Your task to perform on an android device: Open wifi settings Image 0: 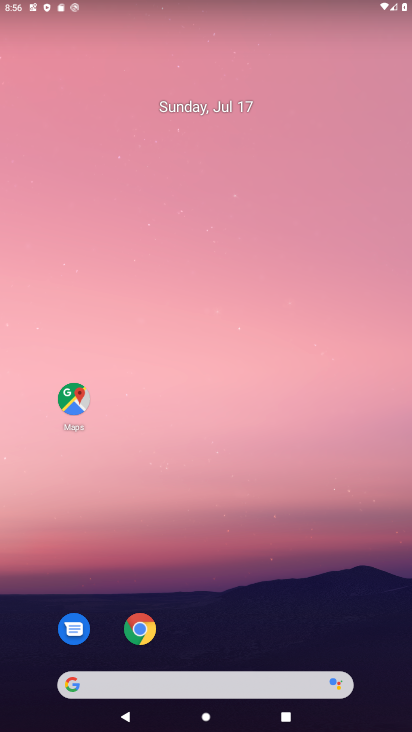
Step 0: click (221, 120)
Your task to perform on an android device: Open wifi settings Image 1: 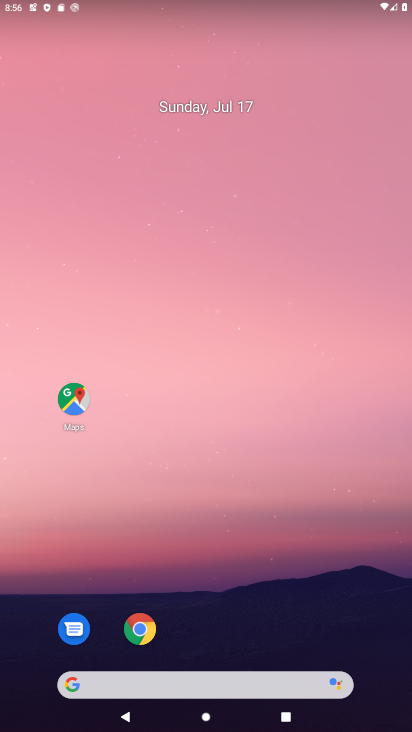
Step 1: drag from (229, 726) to (232, 96)
Your task to perform on an android device: Open wifi settings Image 2: 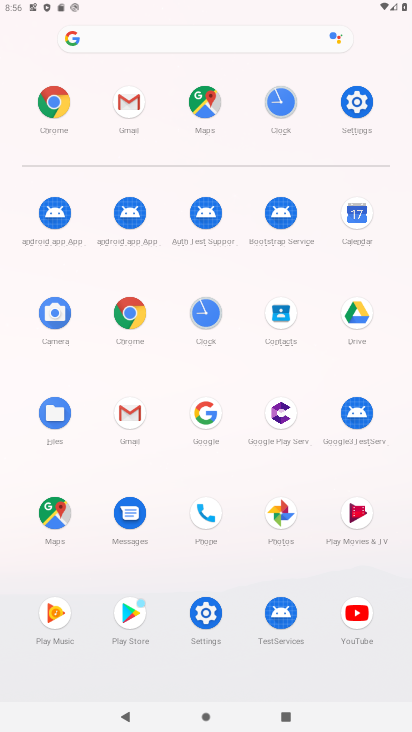
Step 2: click (364, 97)
Your task to perform on an android device: Open wifi settings Image 3: 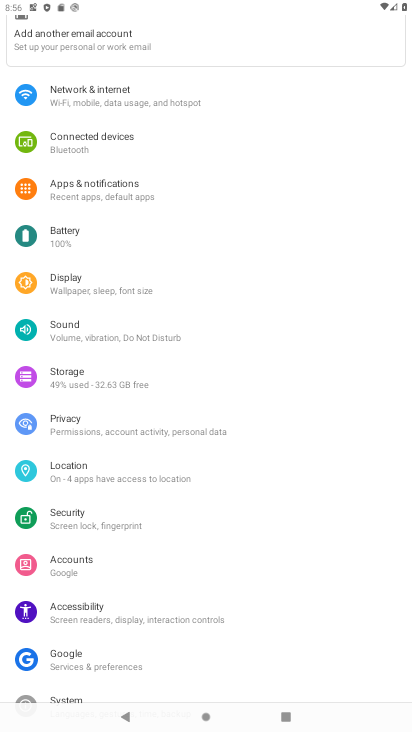
Step 3: click (92, 86)
Your task to perform on an android device: Open wifi settings Image 4: 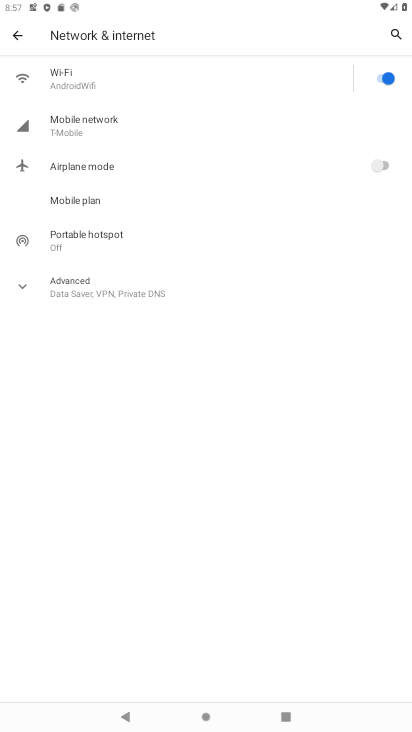
Step 4: click (65, 72)
Your task to perform on an android device: Open wifi settings Image 5: 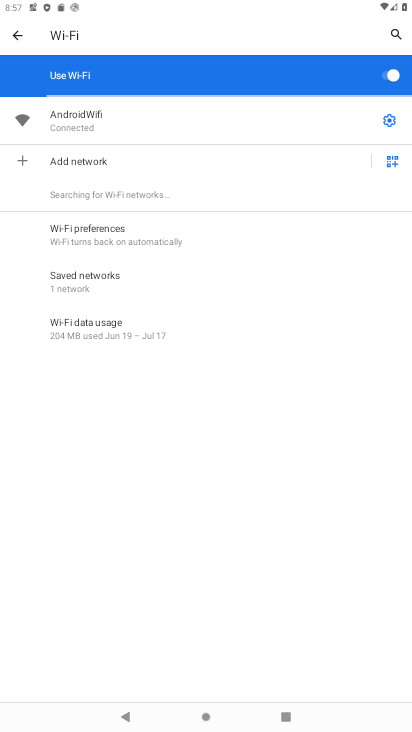
Step 5: task complete